Your task to perform on an android device: turn off notifications settings in the gmail app Image 0: 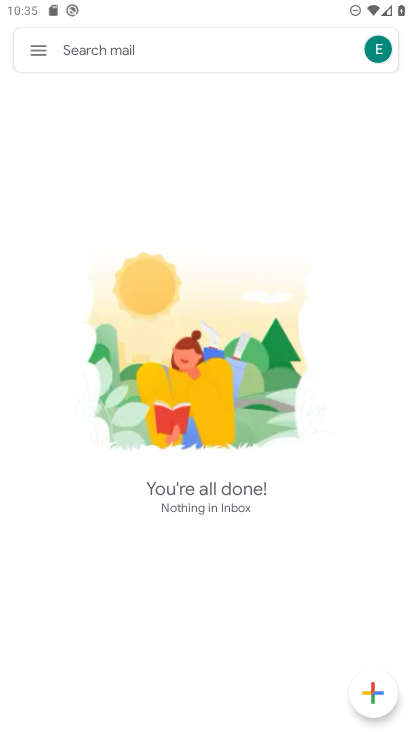
Step 0: press home button
Your task to perform on an android device: turn off notifications settings in the gmail app Image 1: 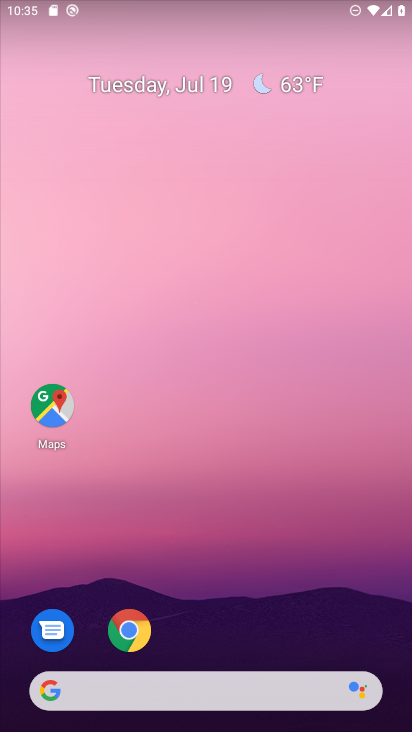
Step 1: drag from (187, 701) to (283, 83)
Your task to perform on an android device: turn off notifications settings in the gmail app Image 2: 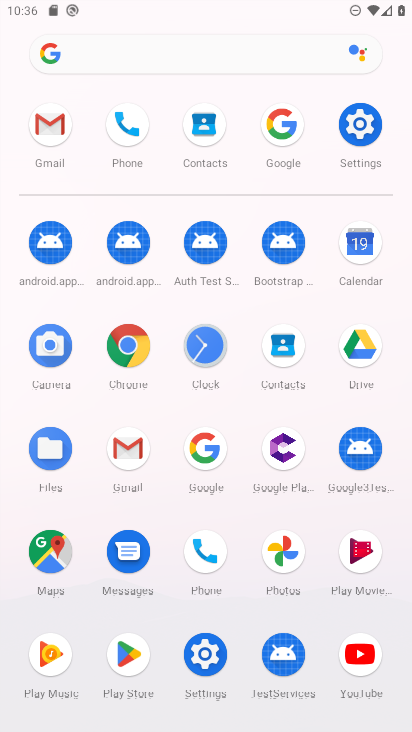
Step 2: click (50, 123)
Your task to perform on an android device: turn off notifications settings in the gmail app Image 3: 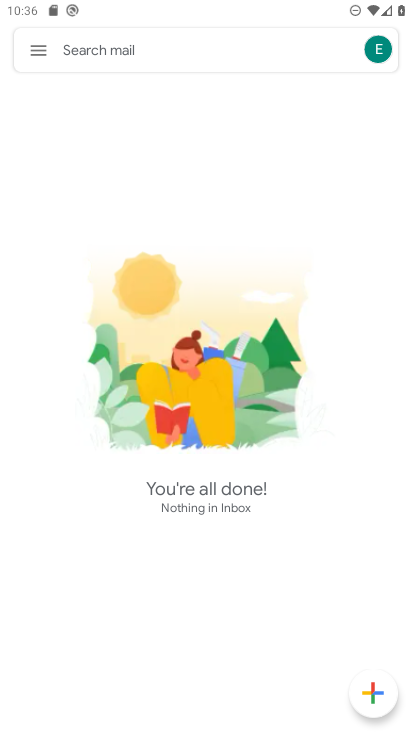
Step 3: click (37, 48)
Your task to perform on an android device: turn off notifications settings in the gmail app Image 4: 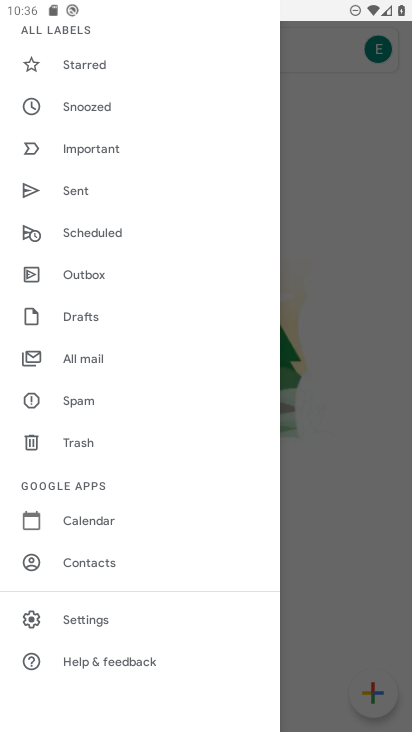
Step 4: click (86, 615)
Your task to perform on an android device: turn off notifications settings in the gmail app Image 5: 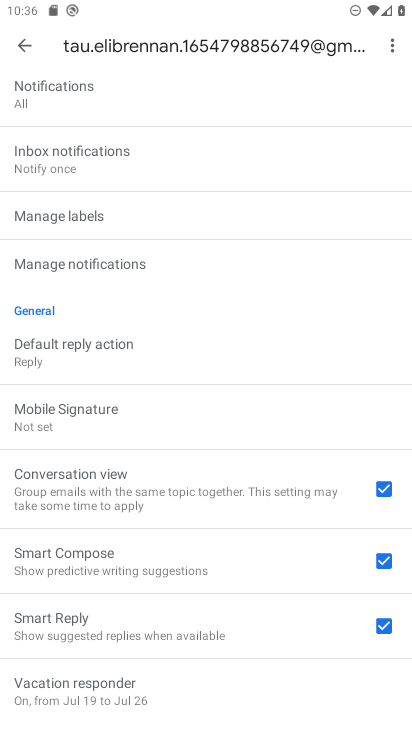
Step 5: click (88, 260)
Your task to perform on an android device: turn off notifications settings in the gmail app Image 6: 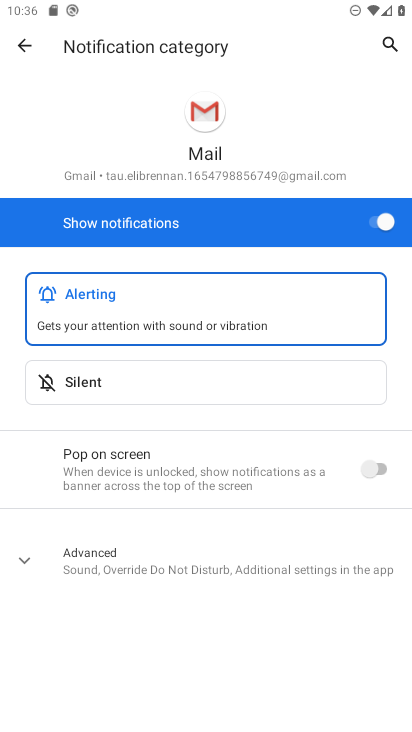
Step 6: click (375, 226)
Your task to perform on an android device: turn off notifications settings in the gmail app Image 7: 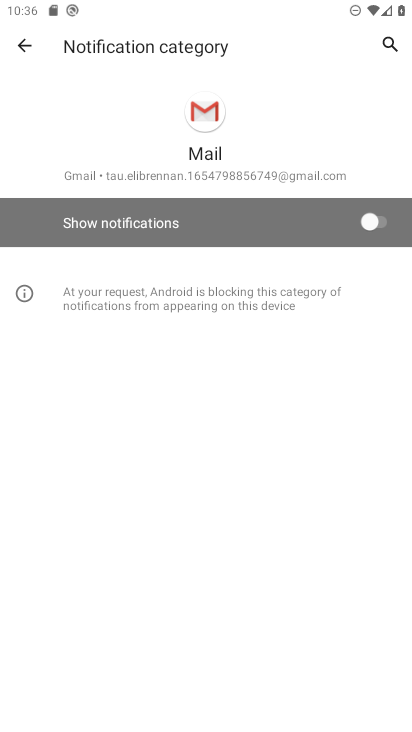
Step 7: task complete